Your task to perform on an android device: Open settings on Google Maps Image 0: 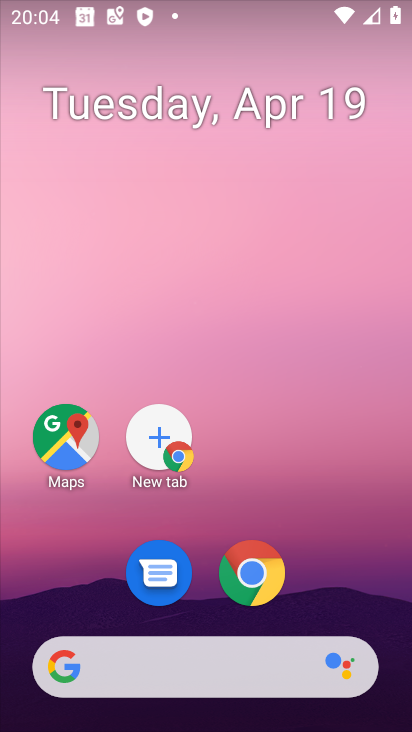
Step 0: click (73, 433)
Your task to perform on an android device: Open settings on Google Maps Image 1: 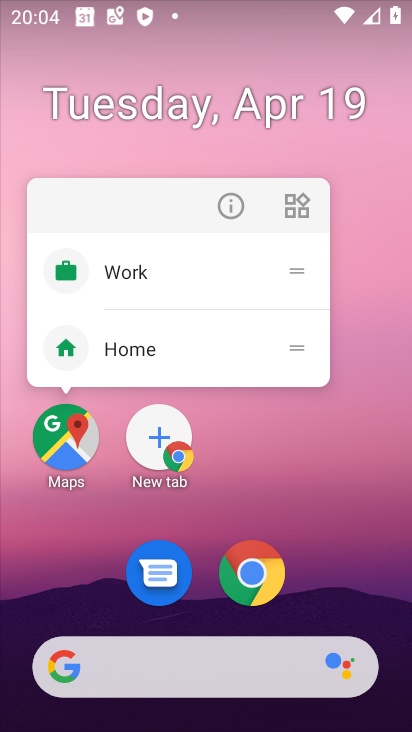
Step 1: click (73, 431)
Your task to perform on an android device: Open settings on Google Maps Image 2: 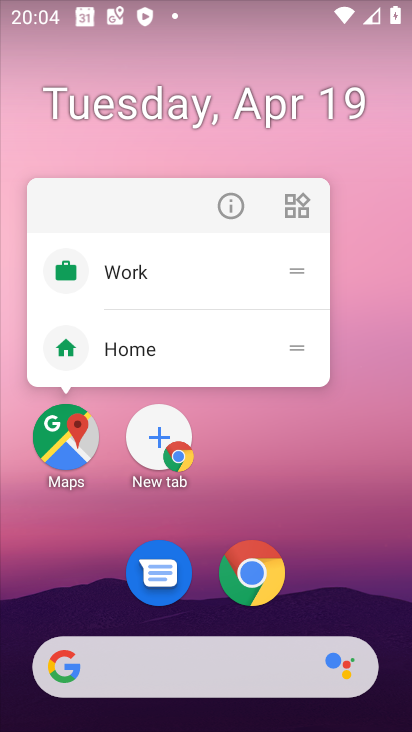
Step 2: click (73, 431)
Your task to perform on an android device: Open settings on Google Maps Image 3: 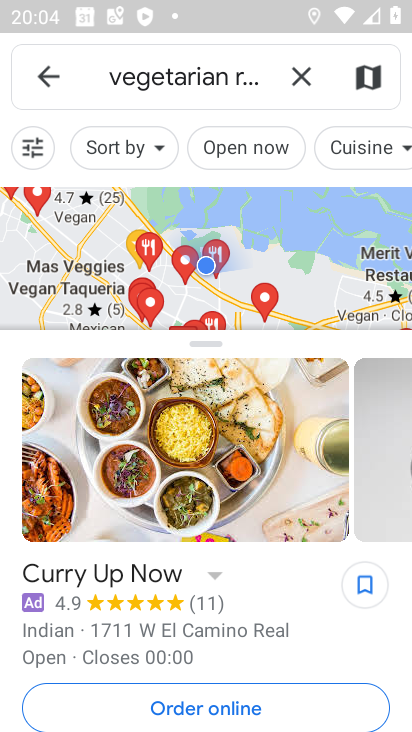
Step 3: click (43, 69)
Your task to perform on an android device: Open settings on Google Maps Image 4: 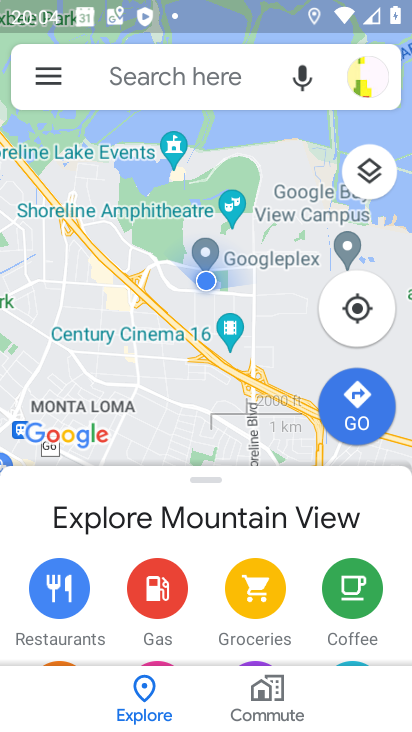
Step 4: click (44, 64)
Your task to perform on an android device: Open settings on Google Maps Image 5: 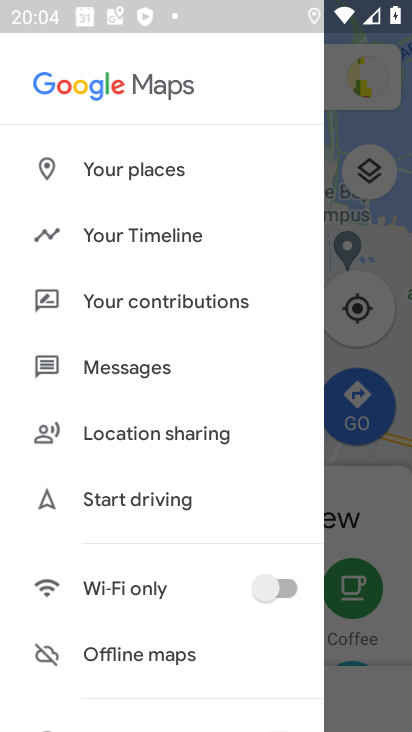
Step 5: drag from (215, 636) to (233, 192)
Your task to perform on an android device: Open settings on Google Maps Image 6: 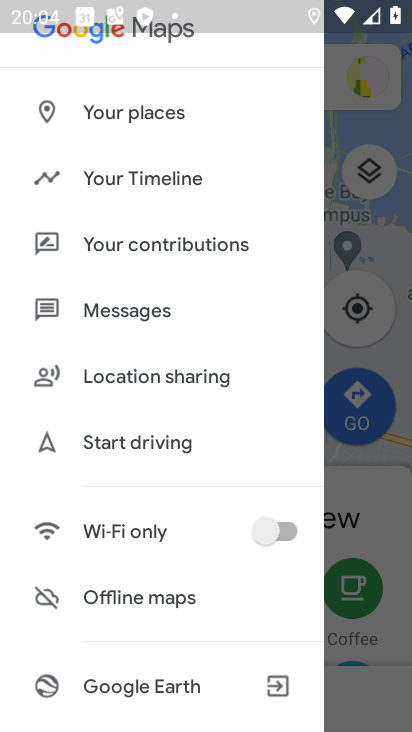
Step 6: drag from (189, 594) to (194, 168)
Your task to perform on an android device: Open settings on Google Maps Image 7: 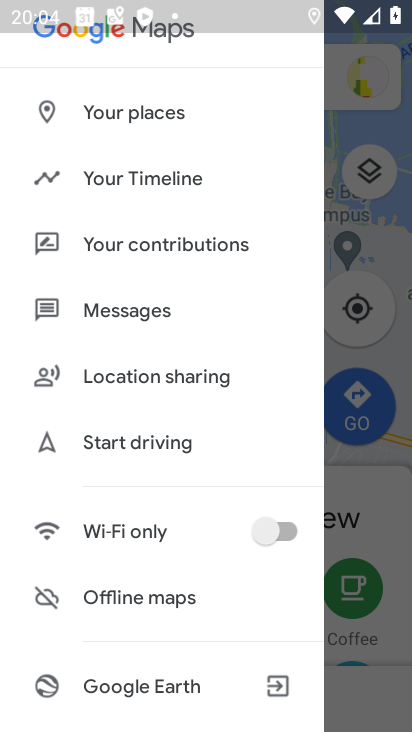
Step 7: drag from (221, 658) to (228, 264)
Your task to perform on an android device: Open settings on Google Maps Image 8: 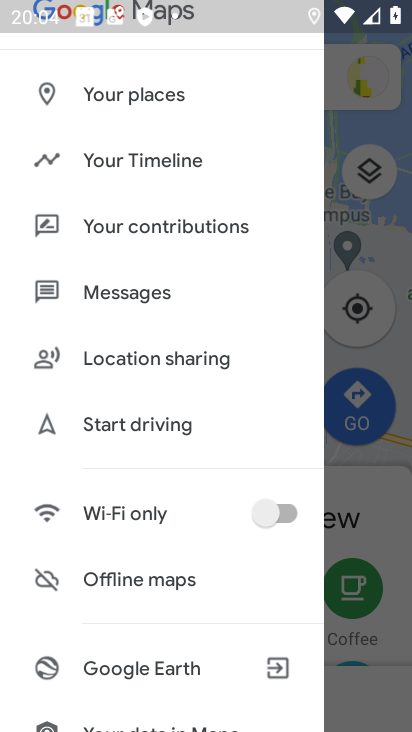
Step 8: drag from (233, 470) to (232, 147)
Your task to perform on an android device: Open settings on Google Maps Image 9: 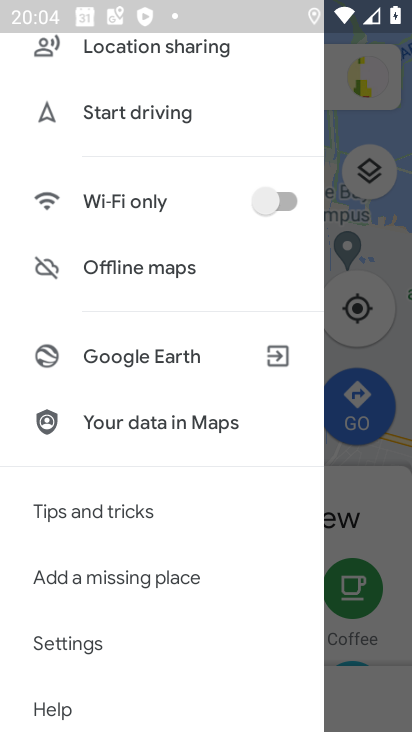
Step 9: click (74, 643)
Your task to perform on an android device: Open settings on Google Maps Image 10: 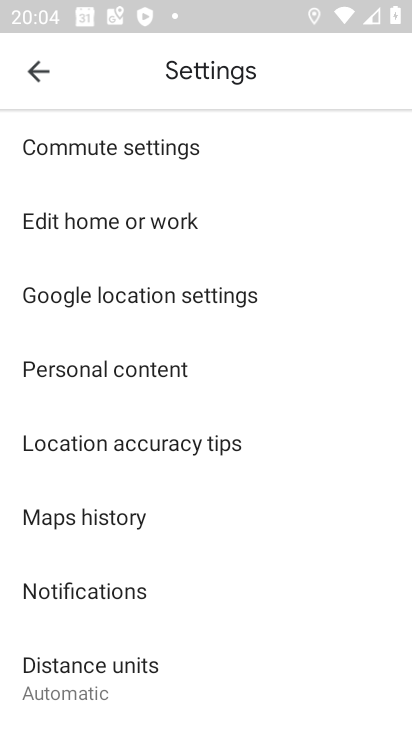
Step 10: drag from (300, 633) to (323, 154)
Your task to perform on an android device: Open settings on Google Maps Image 11: 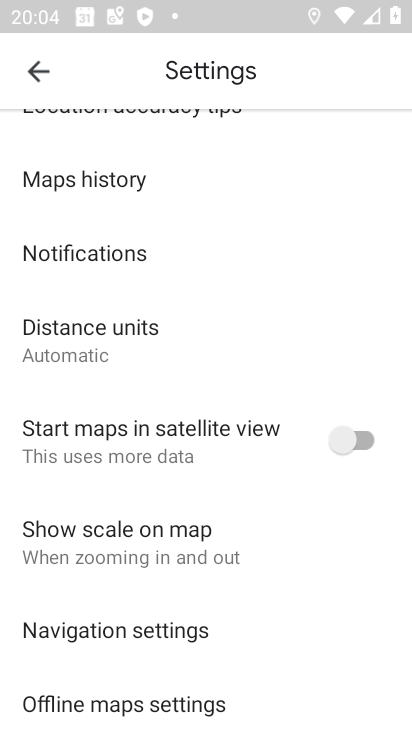
Step 11: click (224, 120)
Your task to perform on an android device: Open settings on Google Maps Image 12: 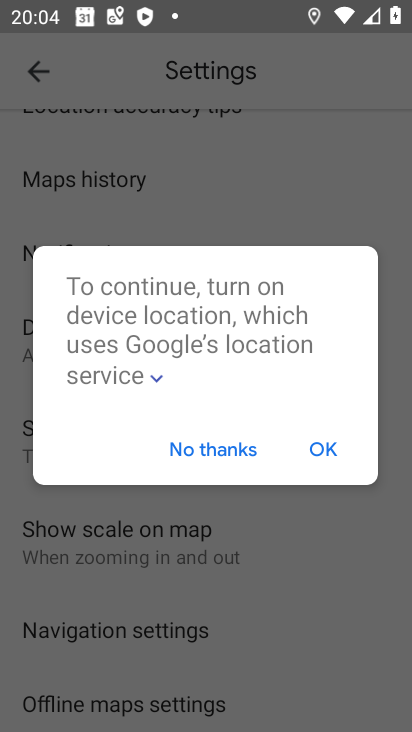
Step 12: click (198, 447)
Your task to perform on an android device: Open settings on Google Maps Image 13: 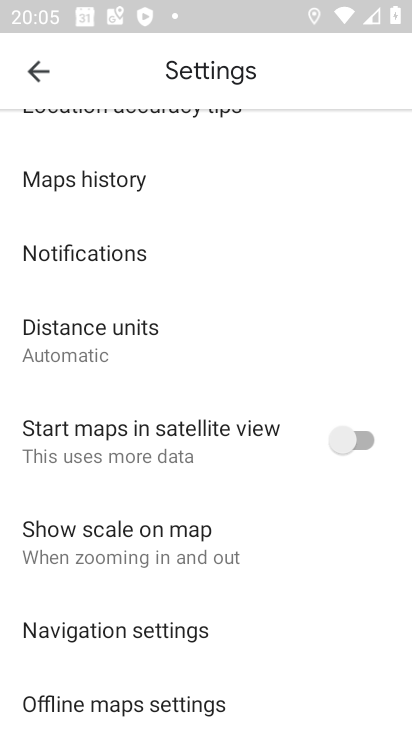
Step 13: task complete